Your task to perform on an android device: turn on location history Image 0: 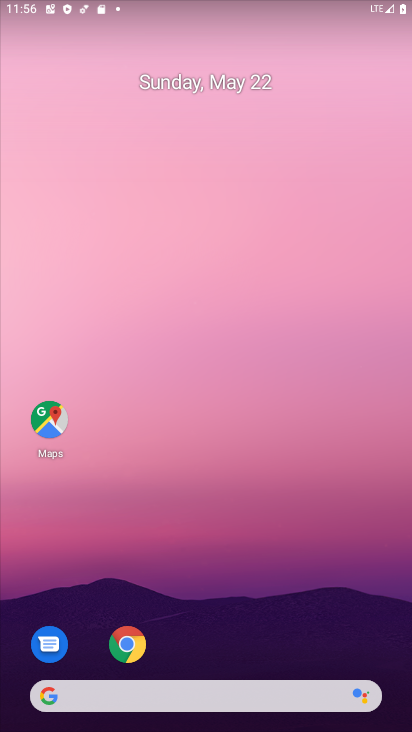
Step 0: drag from (364, 636) to (287, 137)
Your task to perform on an android device: turn on location history Image 1: 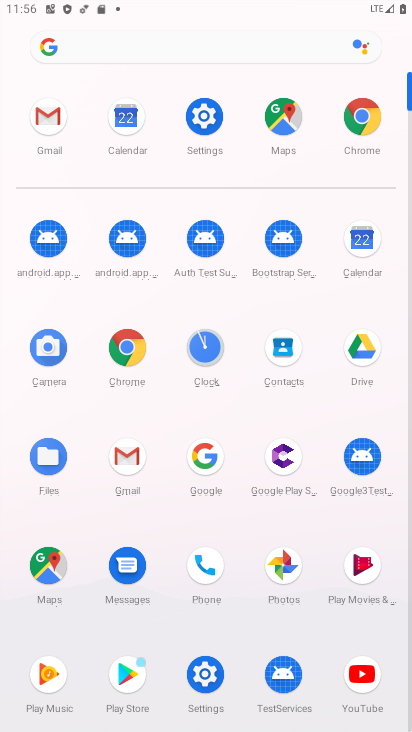
Step 1: click (190, 119)
Your task to perform on an android device: turn on location history Image 2: 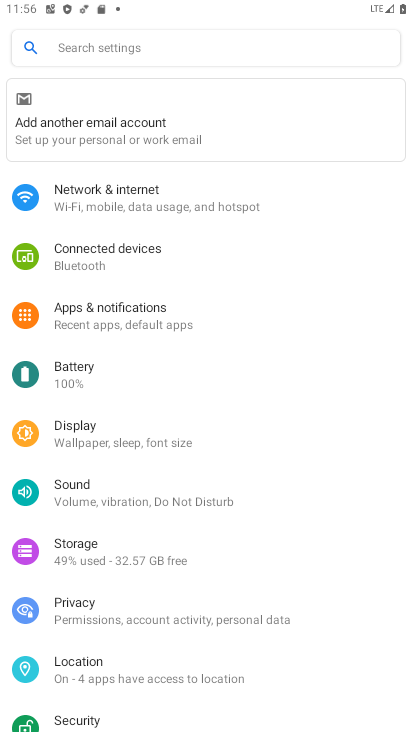
Step 2: click (114, 664)
Your task to perform on an android device: turn on location history Image 3: 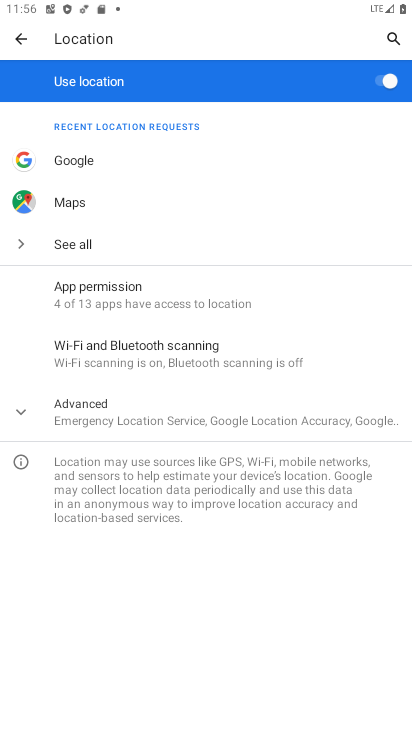
Step 3: click (63, 406)
Your task to perform on an android device: turn on location history Image 4: 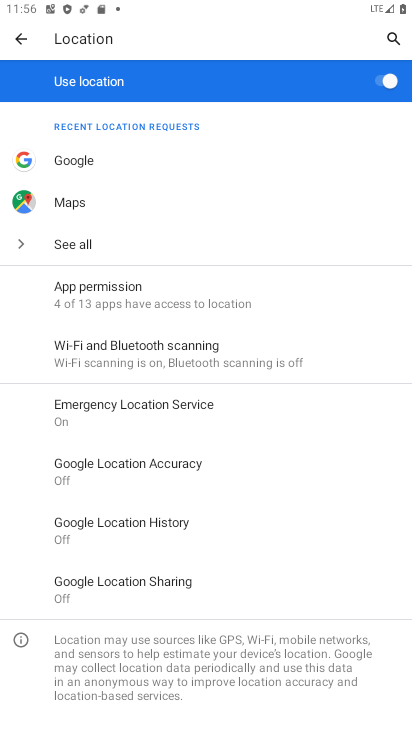
Step 4: click (120, 519)
Your task to perform on an android device: turn on location history Image 5: 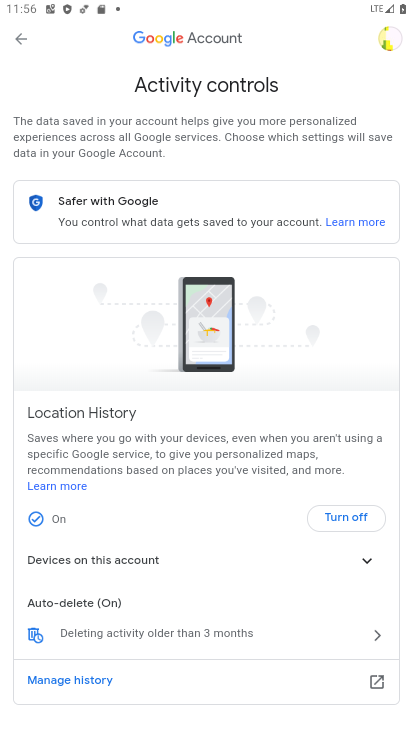
Step 5: click (348, 521)
Your task to perform on an android device: turn on location history Image 6: 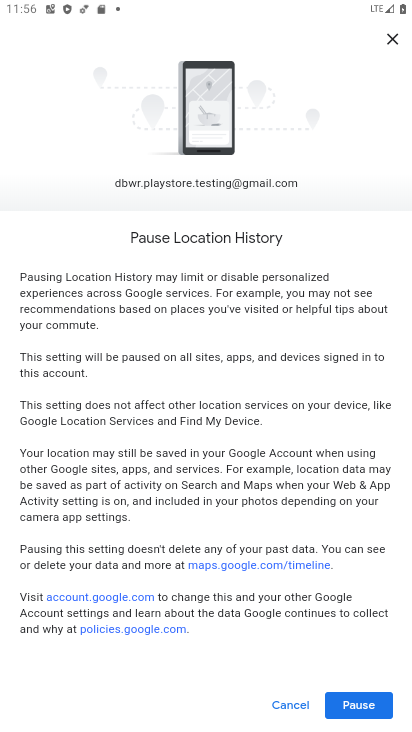
Step 6: task complete